Your task to perform on an android device: open device folders in google photos Image 0: 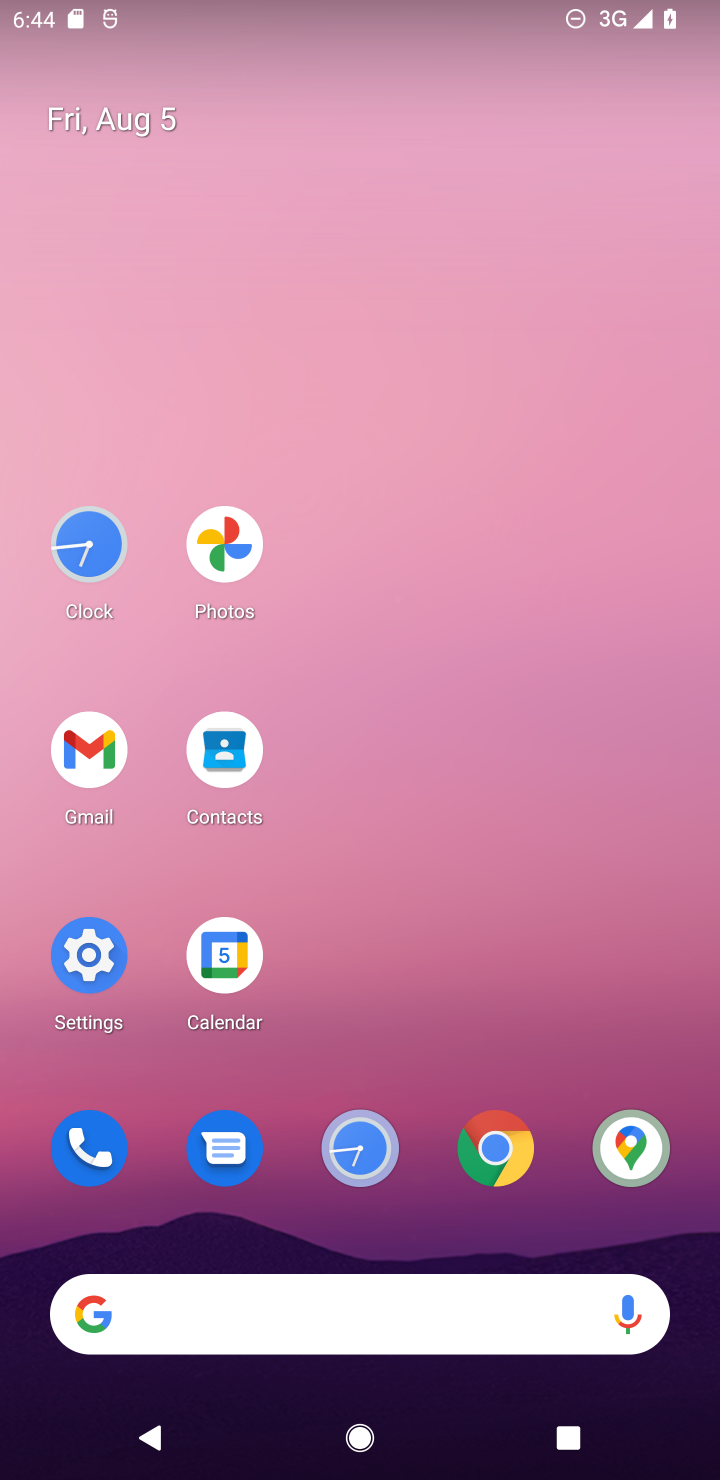
Step 0: click (220, 544)
Your task to perform on an android device: open device folders in google photos Image 1: 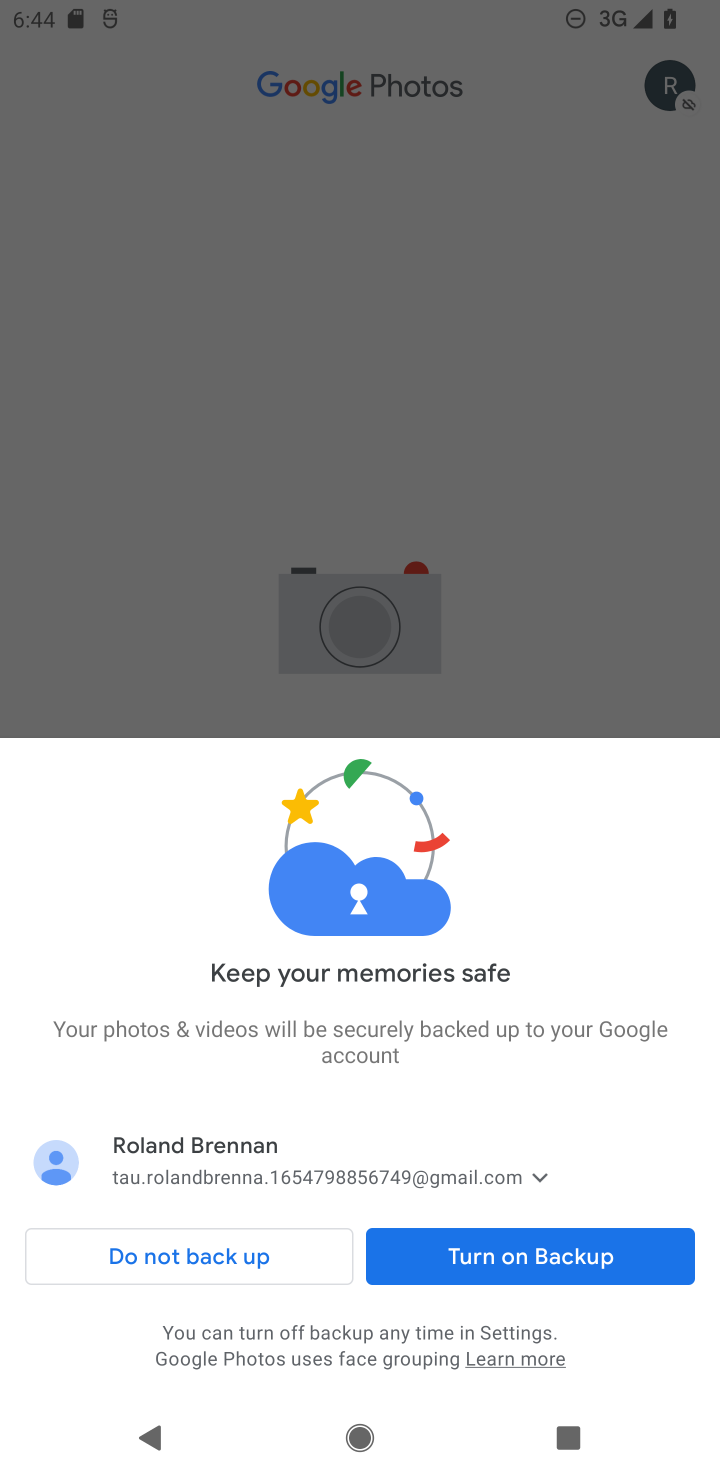
Step 1: click (274, 1243)
Your task to perform on an android device: open device folders in google photos Image 2: 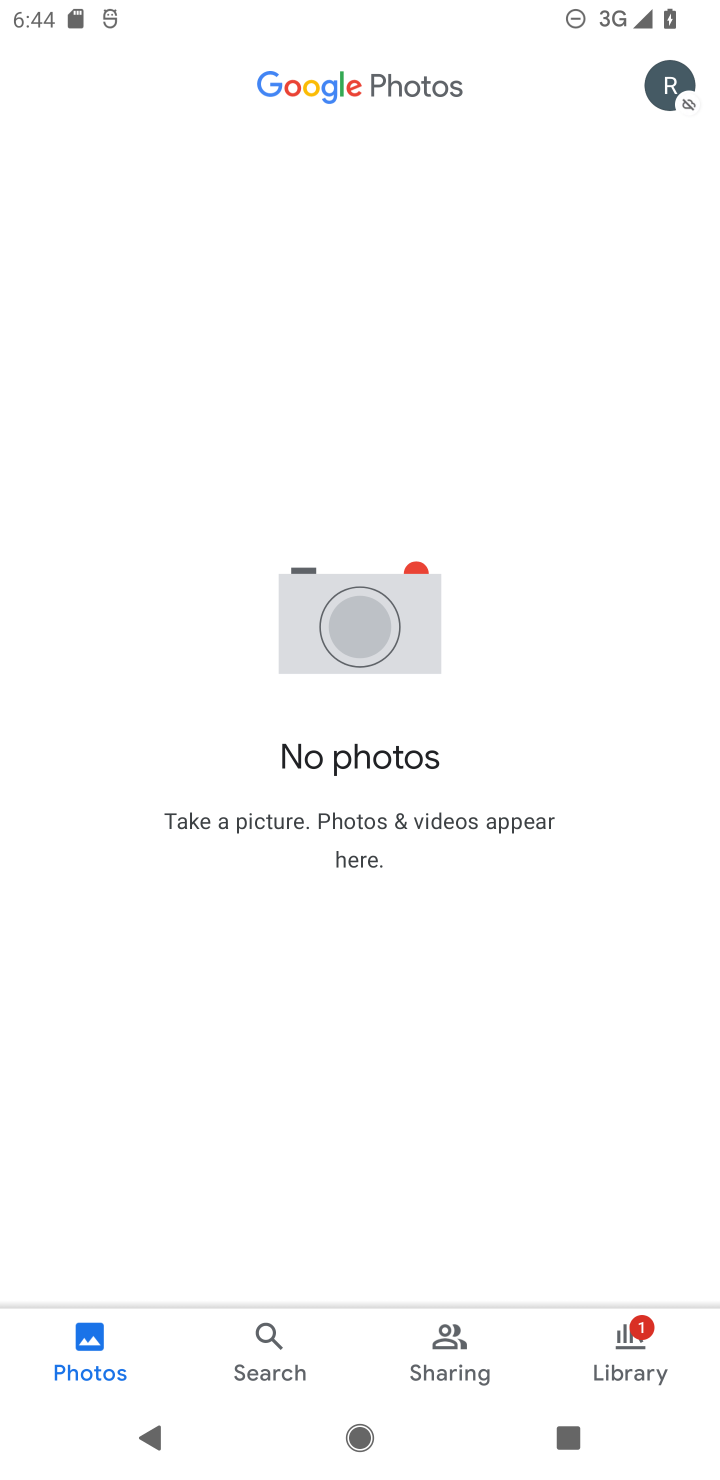
Step 2: click (662, 96)
Your task to perform on an android device: open device folders in google photos Image 3: 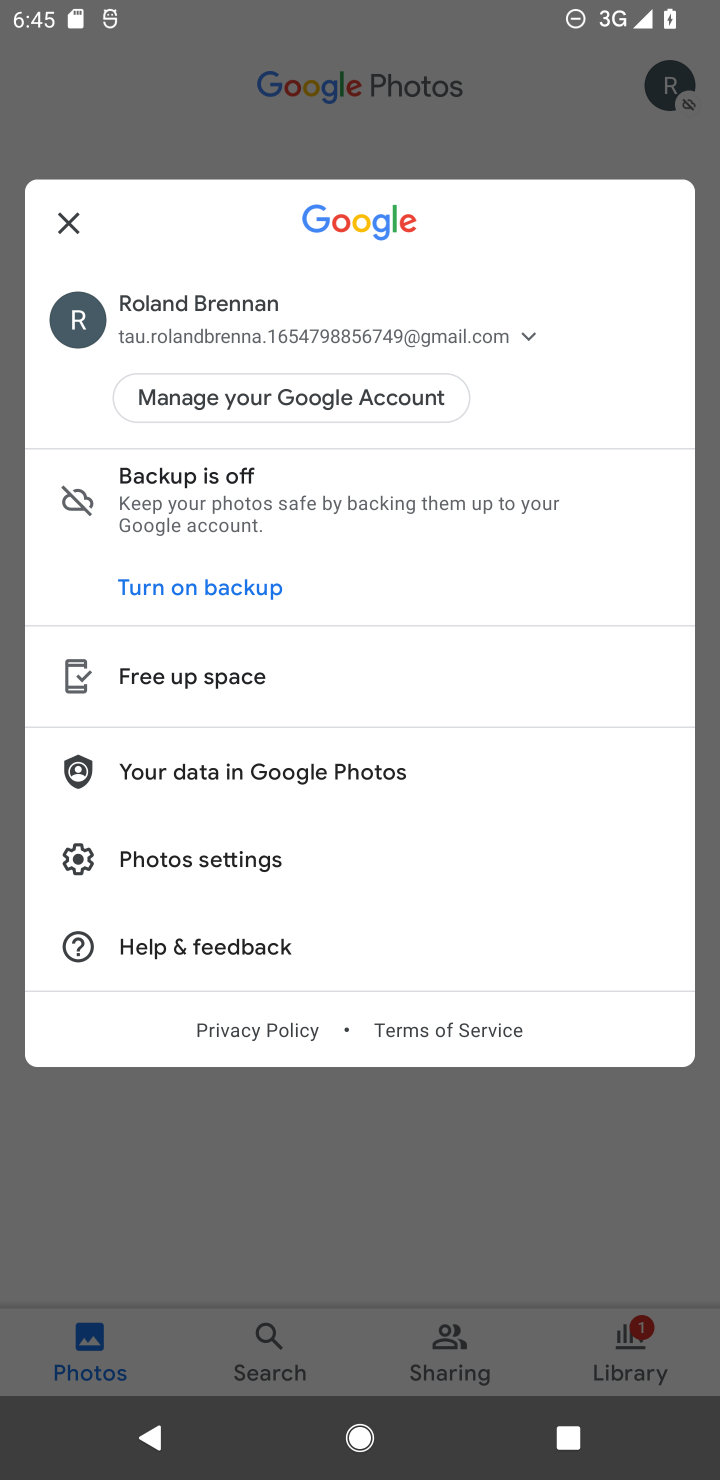
Step 3: click (266, 1142)
Your task to perform on an android device: open device folders in google photos Image 4: 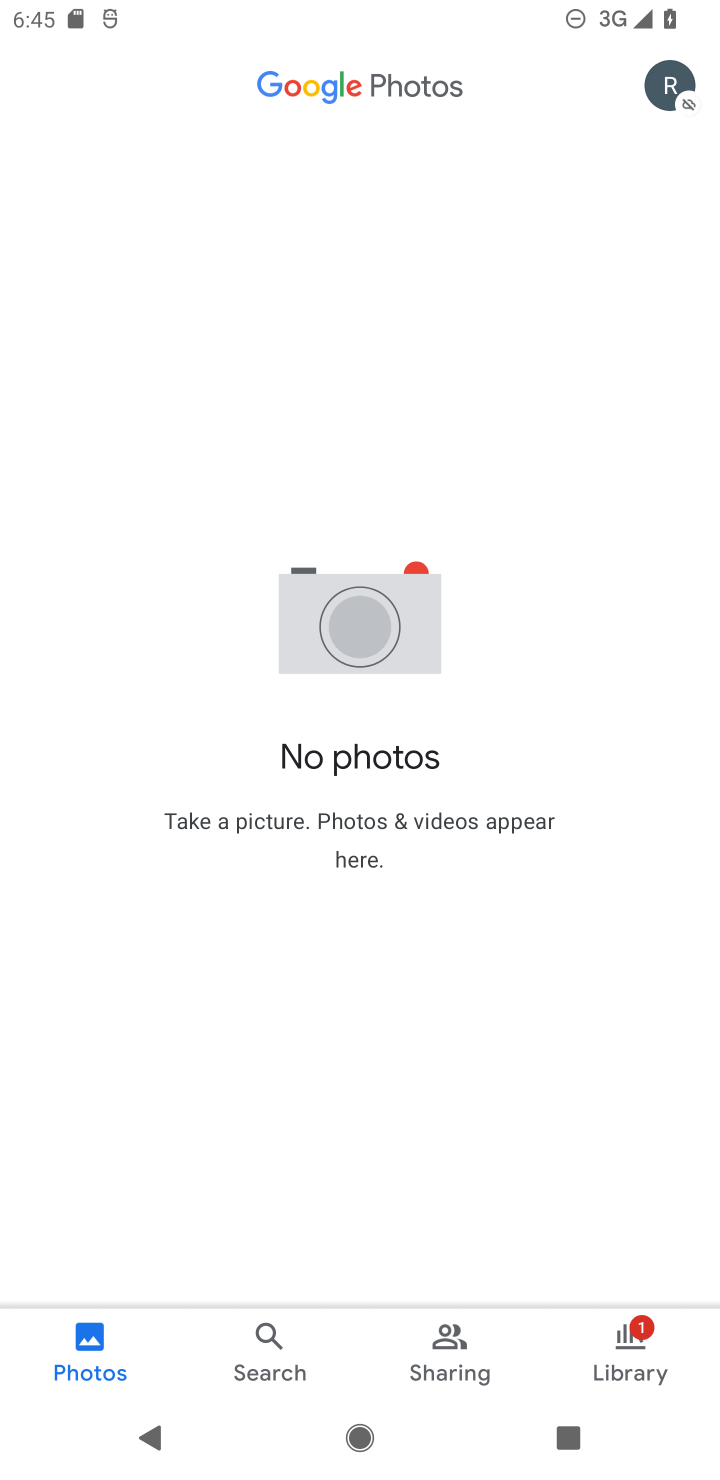
Step 4: click (263, 1332)
Your task to perform on an android device: open device folders in google photos Image 5: 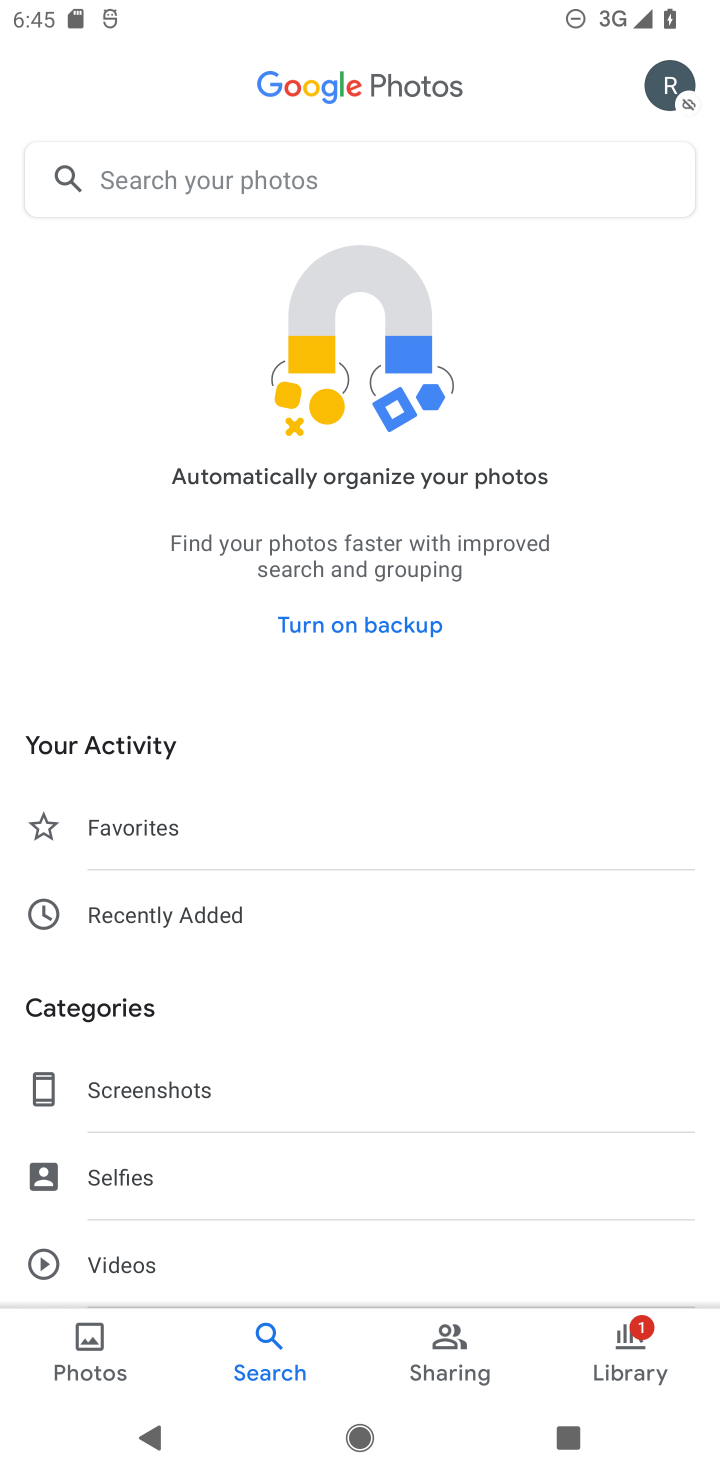
Step 5: click (224, 162)
Your task to perform on an android device: open device folders in google photos Image 6: 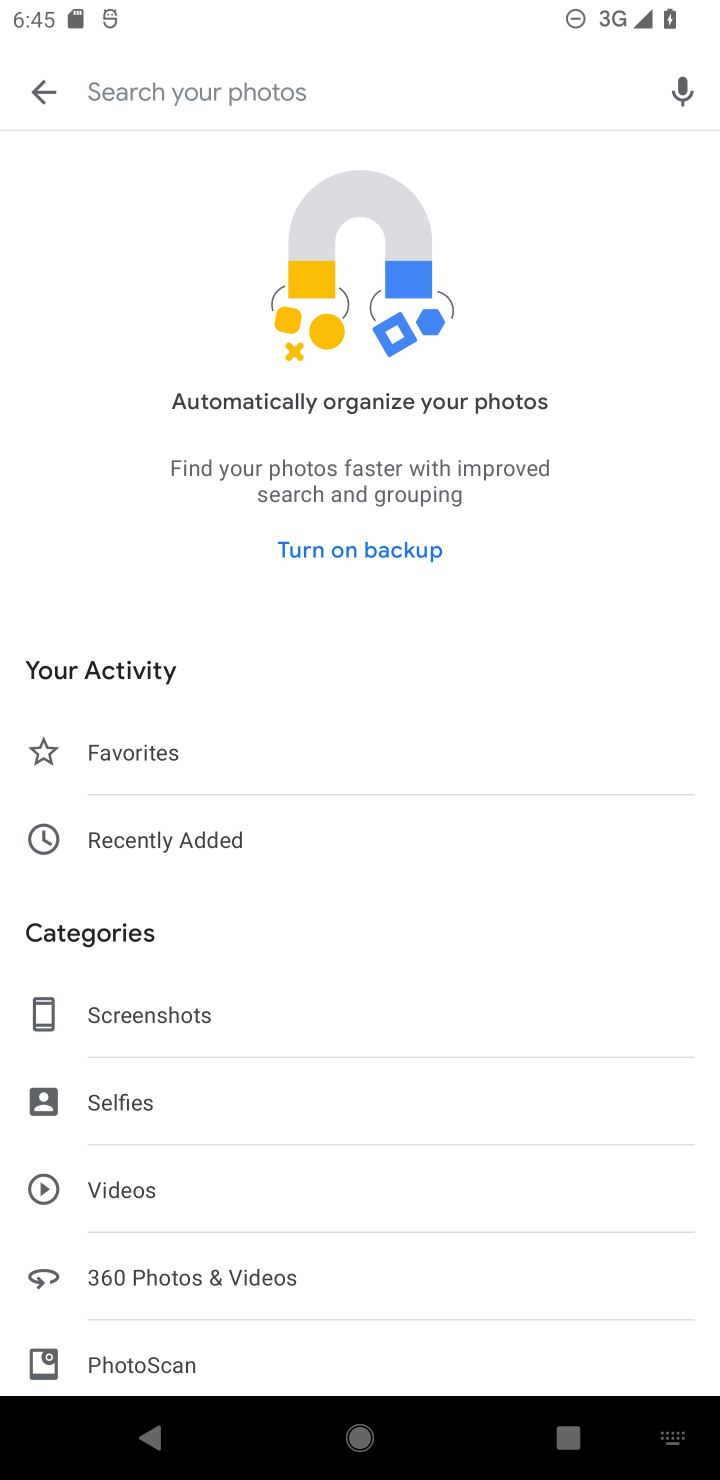
Step 6: type "device"
Your task to perform on an android device: open device folders in google photos Image 7: 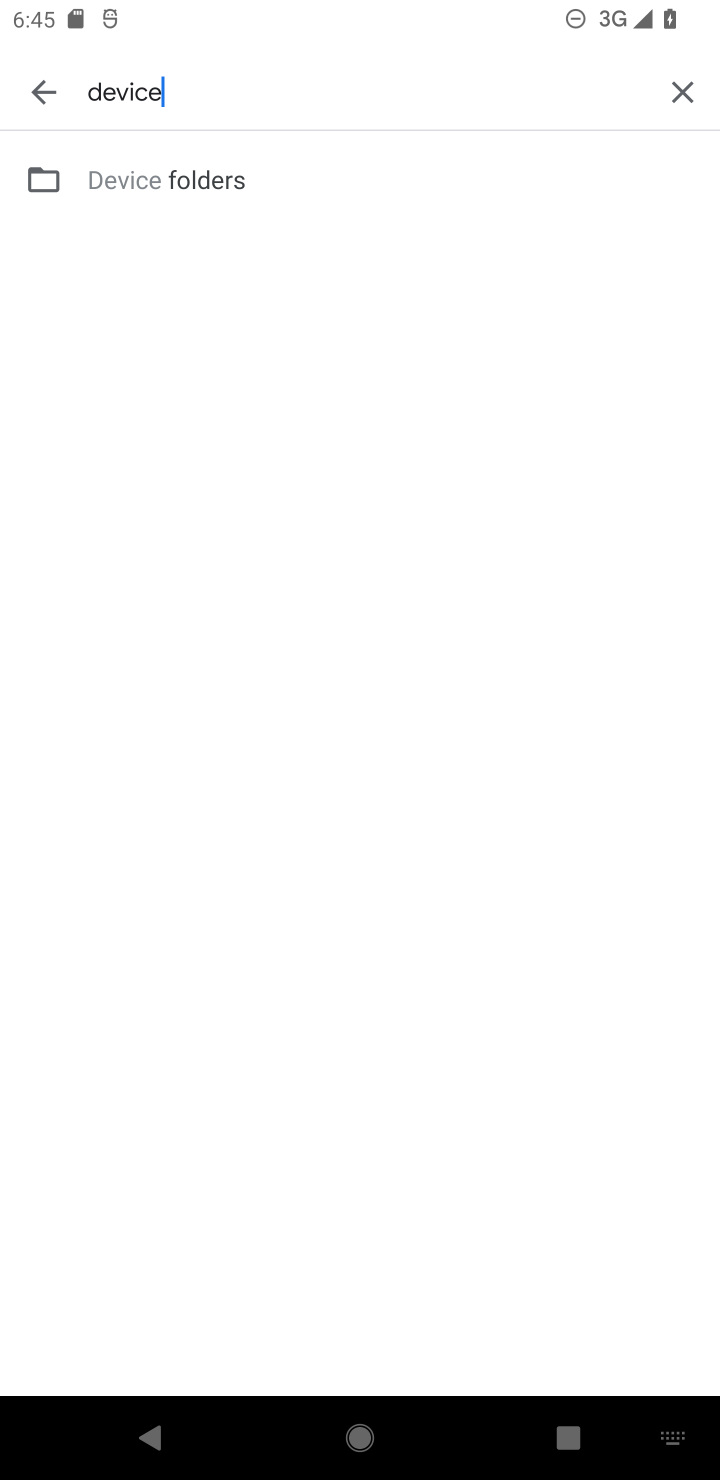
Step 7: click (173, 189)
Your task to perform on an android device: open device folders in google photos Image 8: 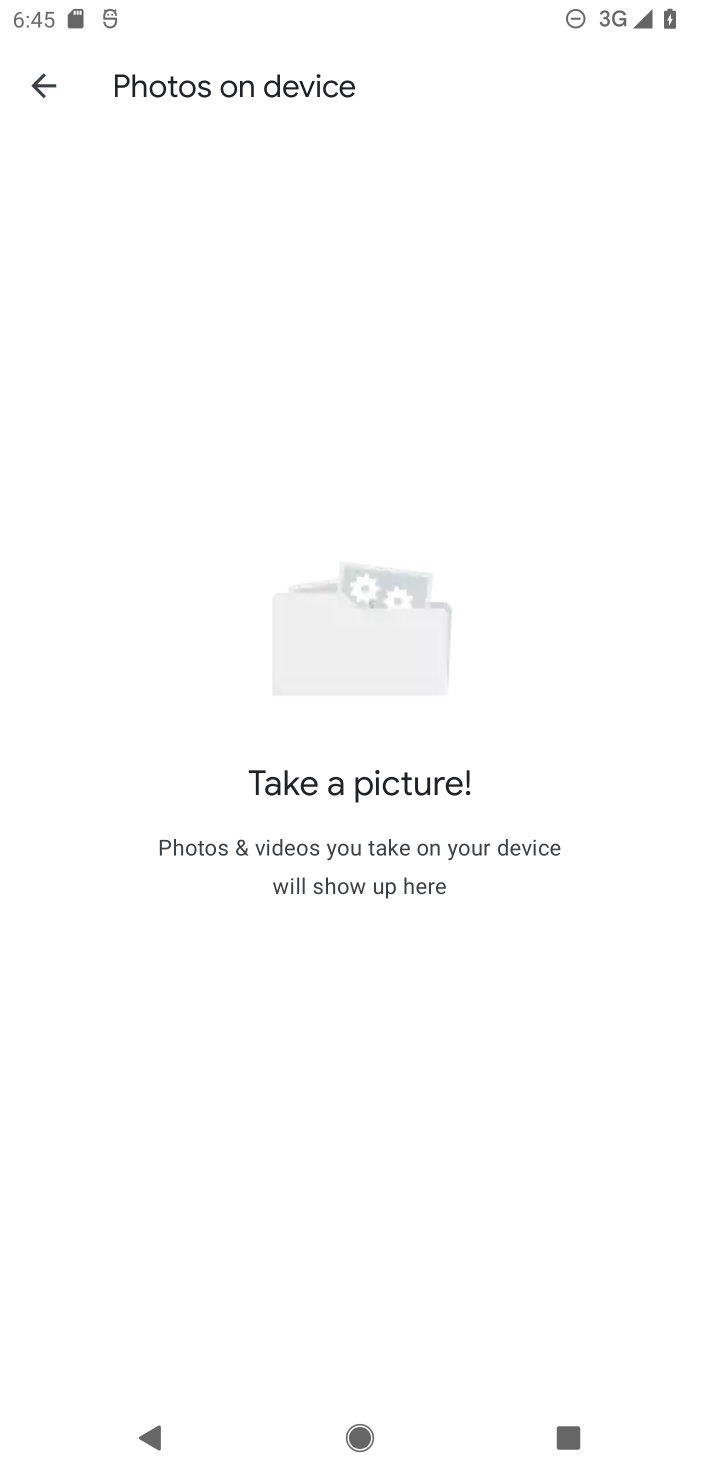
Step 8: task complete